Your task to perform on an android device: Open Google Maps Image 0: 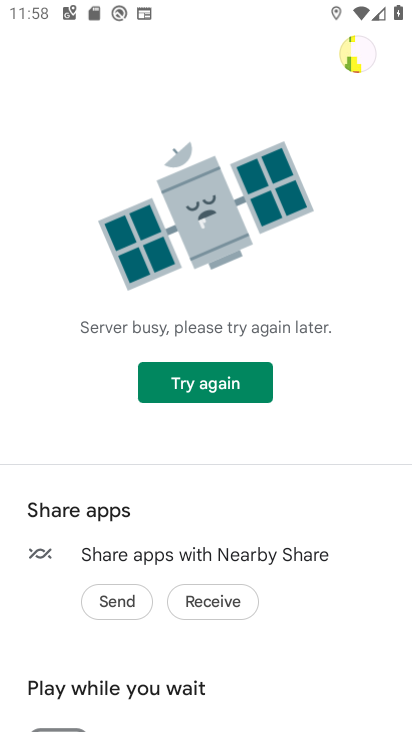
Step 0: press home button
Your task to perform on an android device: Open Google Maps Image 1: 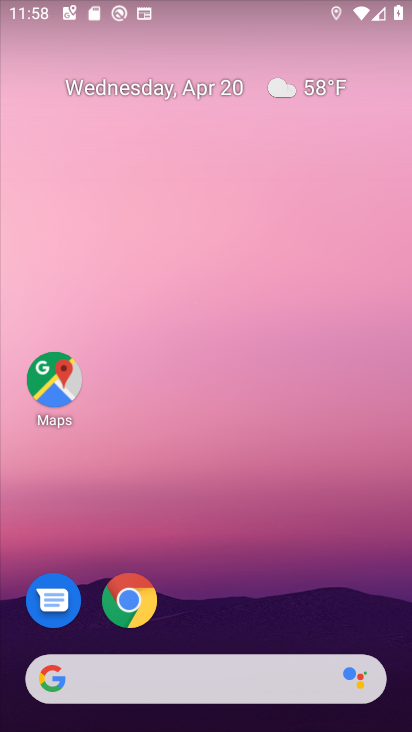
Step 1: drag from (201, 634) to (195, 15)
Your task to perform on an android device: Open Google Maps Image 2: 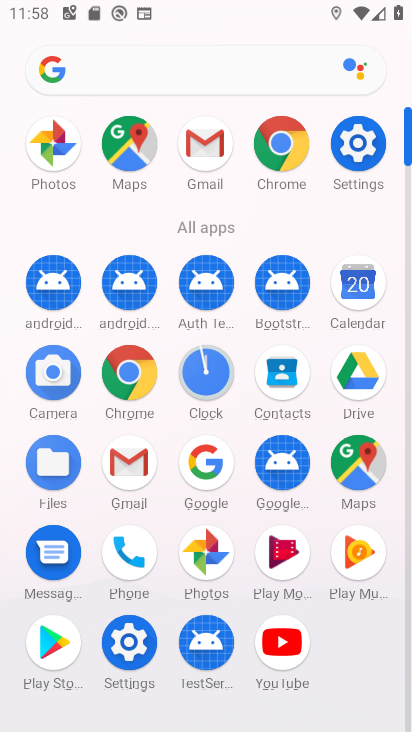
Step 2: click (362, 483)
Your task to perform on an android device: Open Google Maps Image 3: 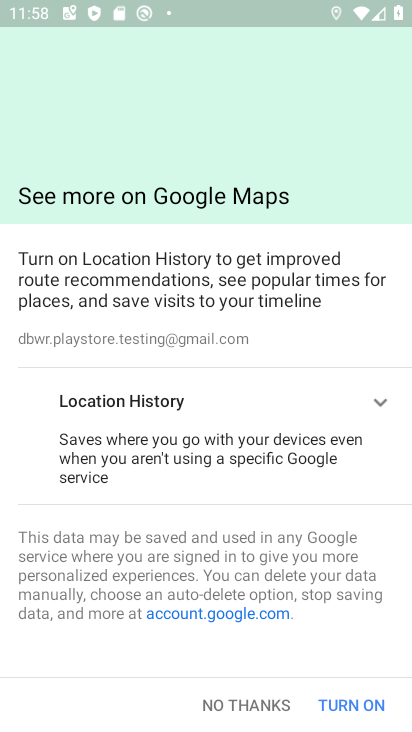
Step 3: task complete